Your task to perform on an android device: Search for vegetarian restaurants on Maps Image 0: 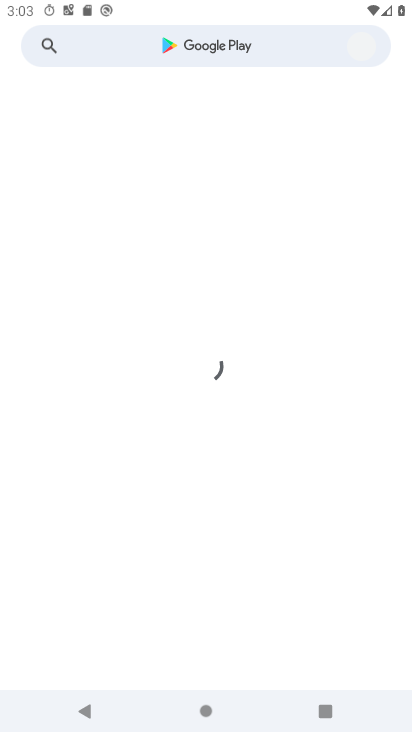
Step 0: press home button
Your task to perform on an android device: Search for vegetarian restaurants on Maps Image 1: 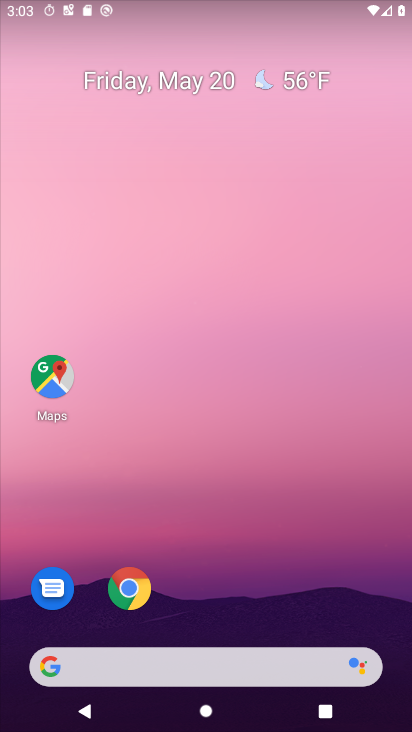
Step 1: click (63, 375)
Your task to perform on an android device: Search for vegetarian restaurants on Maps Image 2: 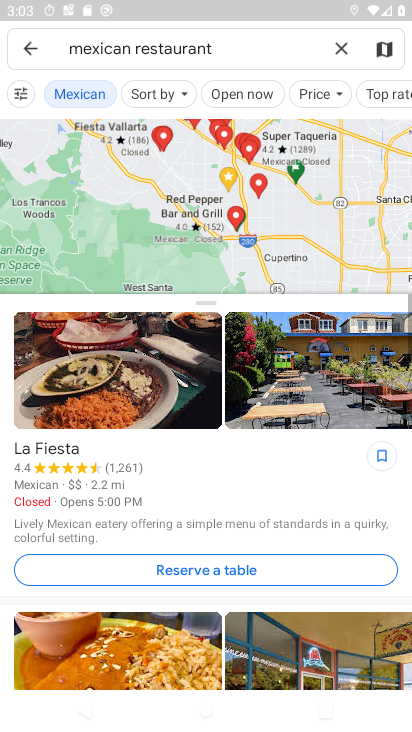
Step 2: click (340, 47)
Your task to perform on an android device: Search for vegetarian restaurants on Maps Image 3: 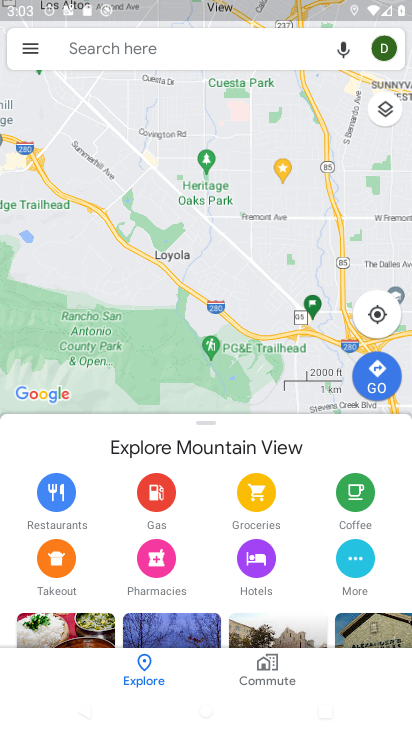
Step 3: click (227, 52)
Your task to perform on an android device: Search for vegetarian restaurants on Maps Image 4: 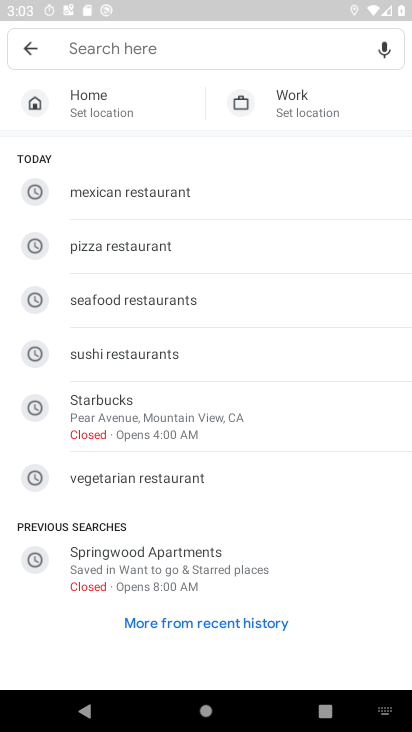
Step 4: click (189, 44)
Your task to perform on an android device: Search for vegetarian restaurants on Maps Image 5: 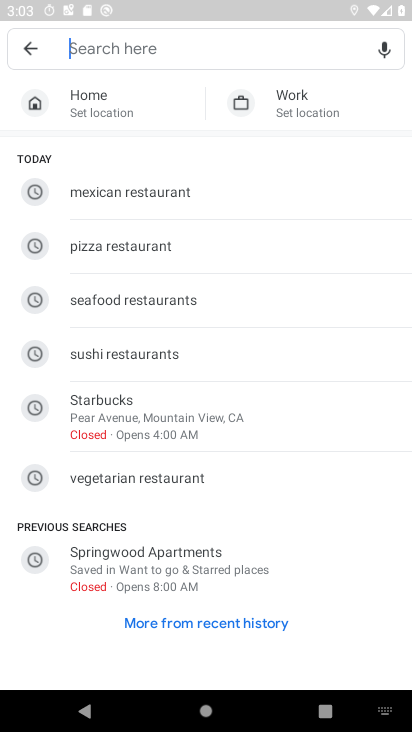
Step 5: type "vegetarian restaurants"
Your task to perform on an android device: Search for vegetarian restaurants on Maps Image 6: 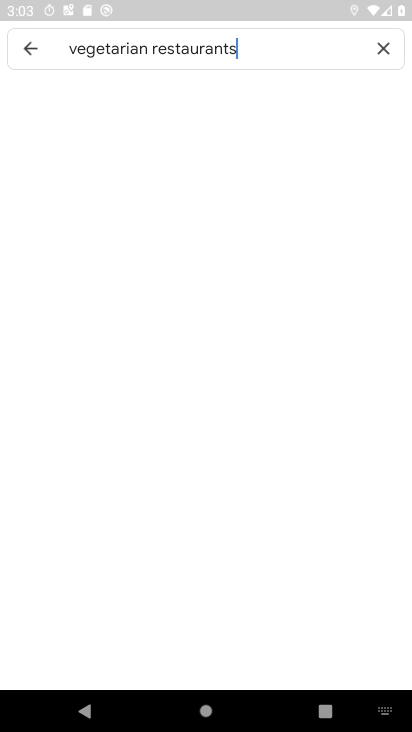
Step 6: type ""
Your task to perform on an android device: Search for vegetarian restaurants on Maps Image 7: 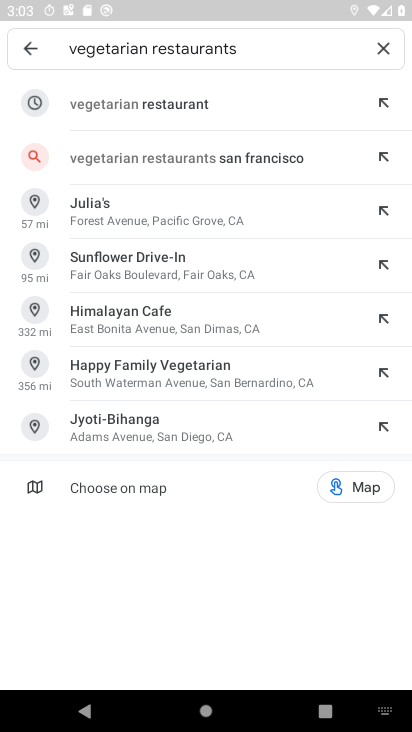
Step 7: click (134, 99)
Your task to perform on an android device: Search for vegetarian restaurants on Maps Image 8: 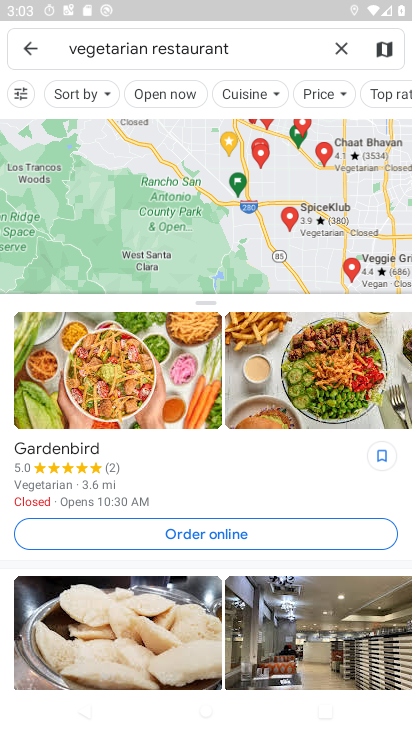
Step 8: task complete